Your task to perform on an android device: Open calendar and show me the fourth week of next month Image 0: 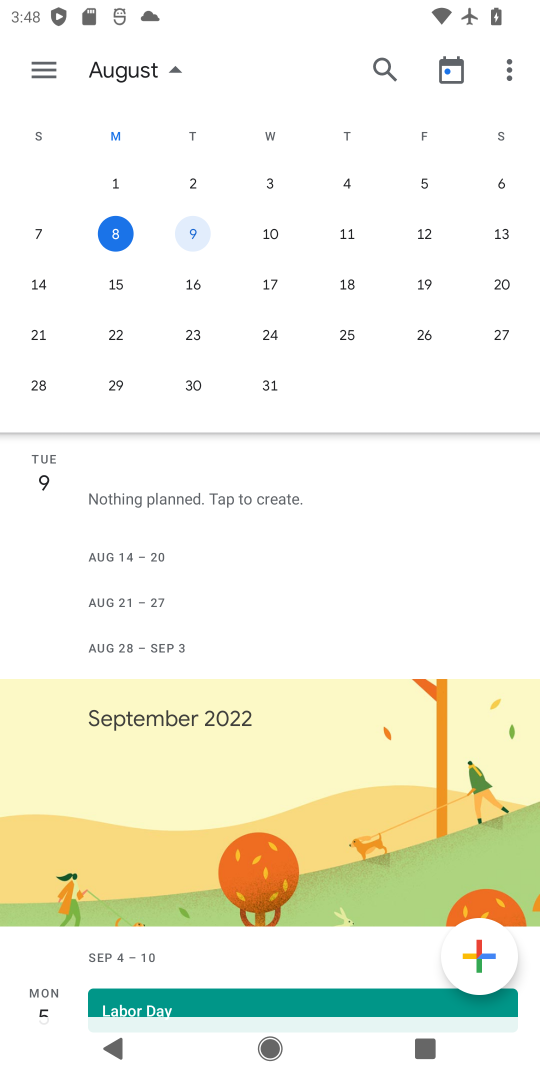
Step 0: press home button
Your task to perform on an android device: Open calendar and show me the fourth week of next month Image 1: 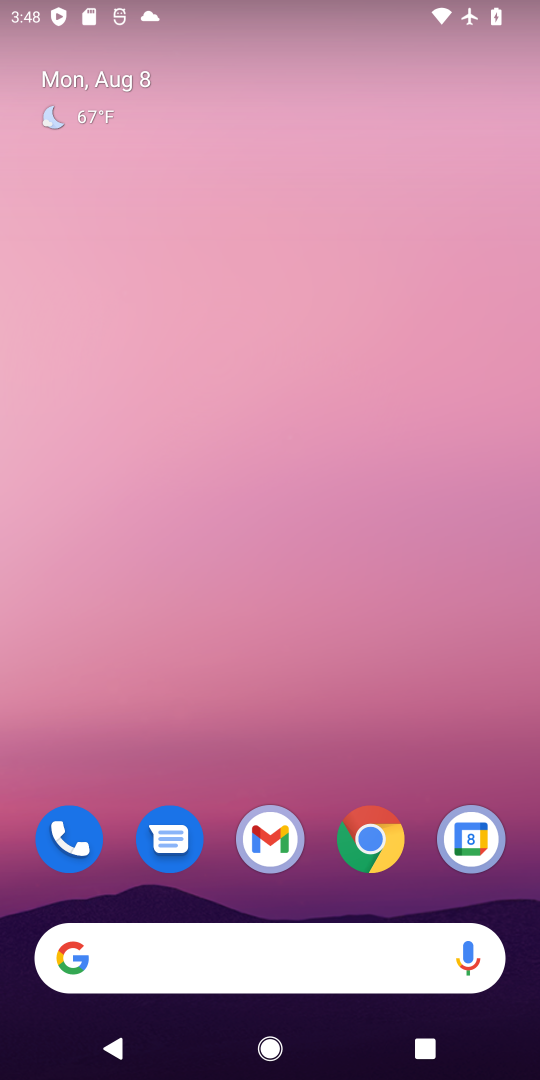
Step 1: drag from (418, 707) to (402, 226)
Your task to perform on an android device: Open calendar and show me the fourth week of next month Image 2: 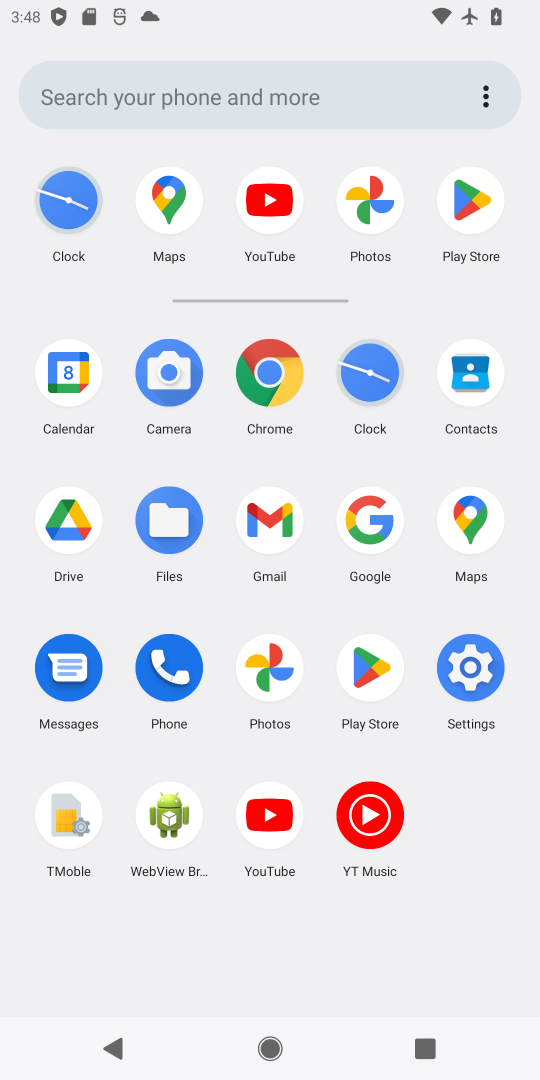
Step 2: click (69, 376)
Your task to perform on an android device: Open calendar and show me the fourth week of next month Image 3: 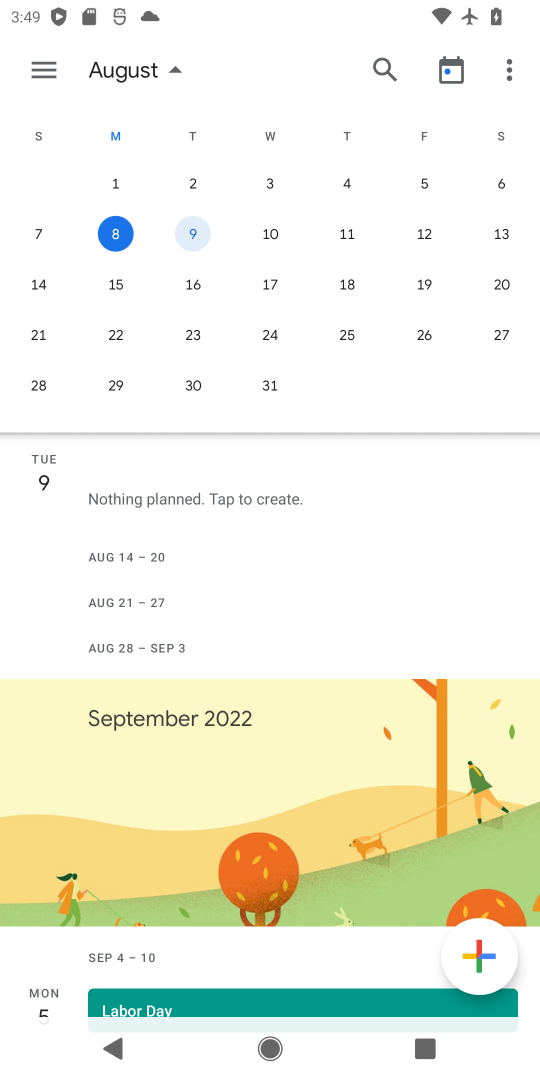
Step 3: drag from (497, 204) to (0, 194)
Your task to perform on an android device: Open calendar and show me the fourth week of next month Image 4: 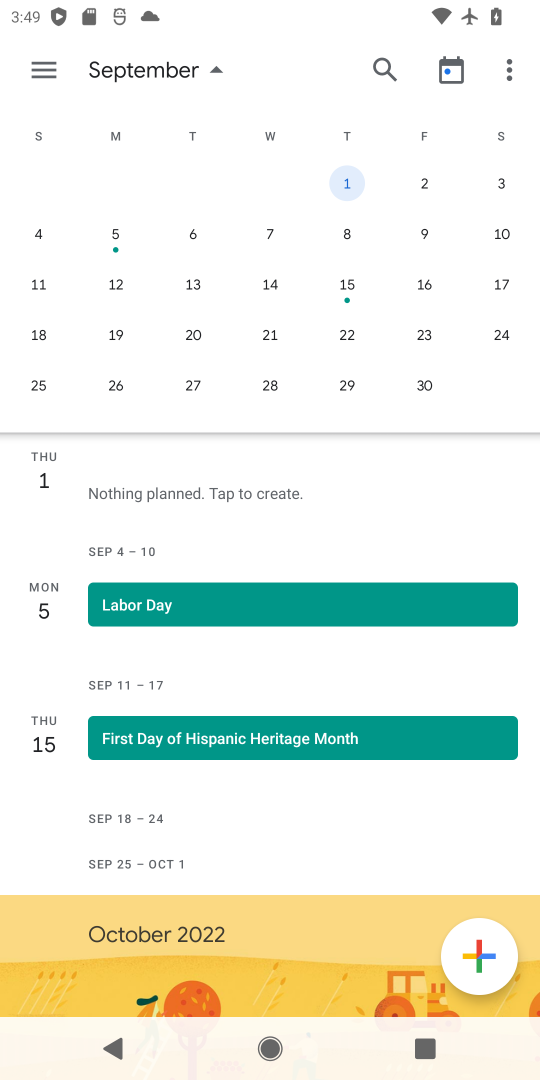
Step 4: click (116, 330)
Your task to perform on an android device: Open calendar and show me the fourth week of next month Image 5: 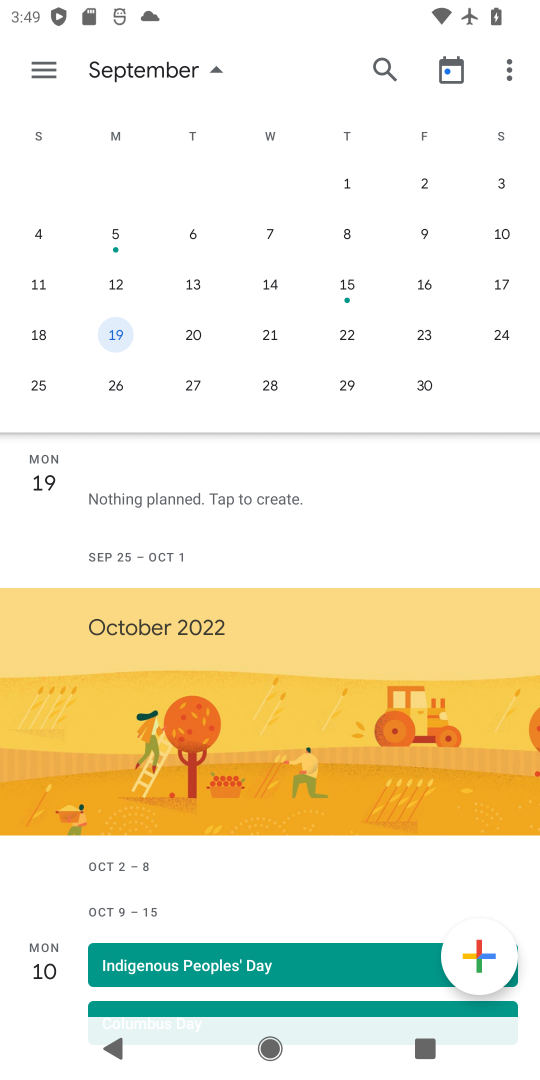
Step 5: task complete